Your task to perform on an android device: Is it going to rain today? Image 0: 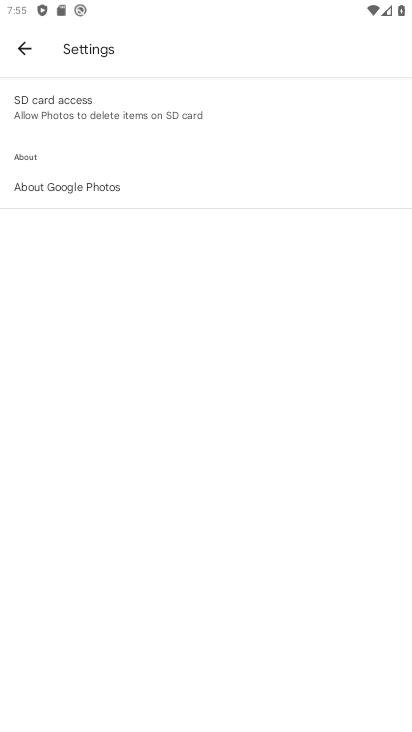
Step 0: press home button
Your task to perform on an android device: Is it going to rain today? Image 1: 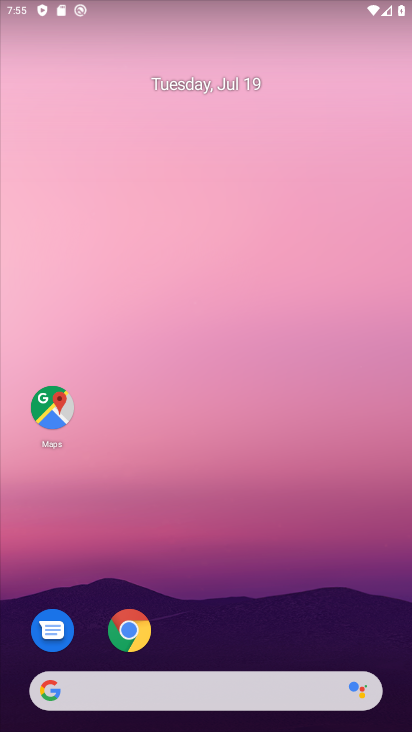
Step 1: drag from (249, 668) to (231, 174)
Your task to perform on an android device: Is it going to rain today? Image 2: 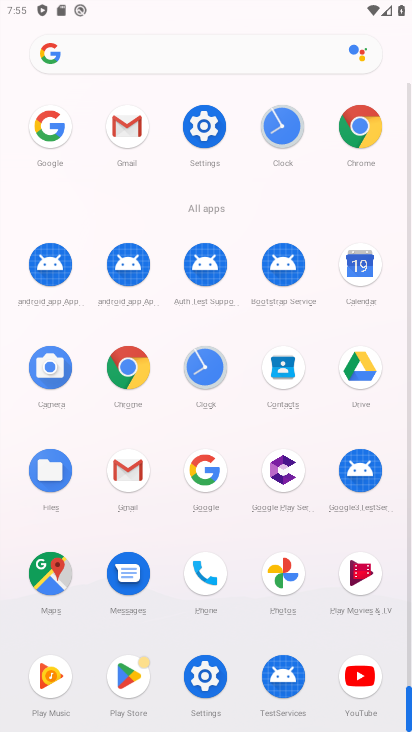
Step 2: click (214, 486)
Your task to perform on an android device: Is it going to rain today? Image 3: 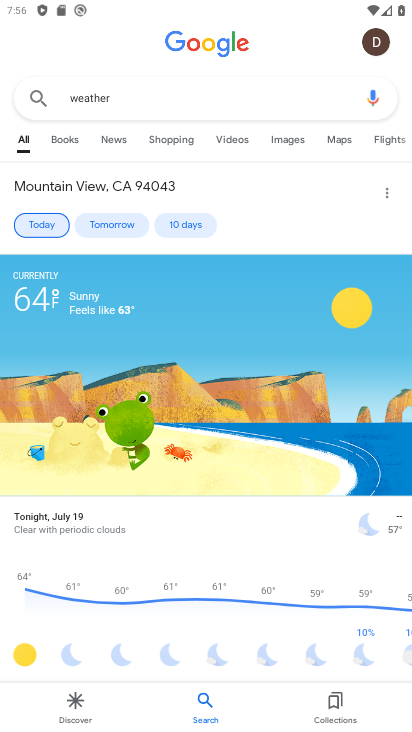
Step 3: task complete